Your task to perform on an android device: Search for pizza restaurants on Maps Image 0: 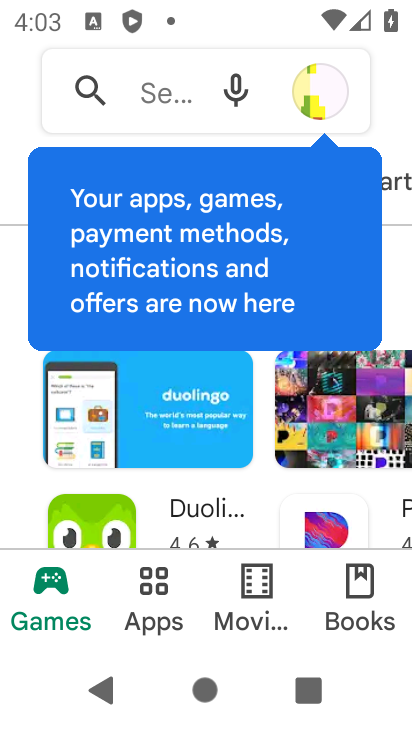
Step 0: press home button
Your task to perform on an android device: Search for pizza restaurants on Maps Image 1: 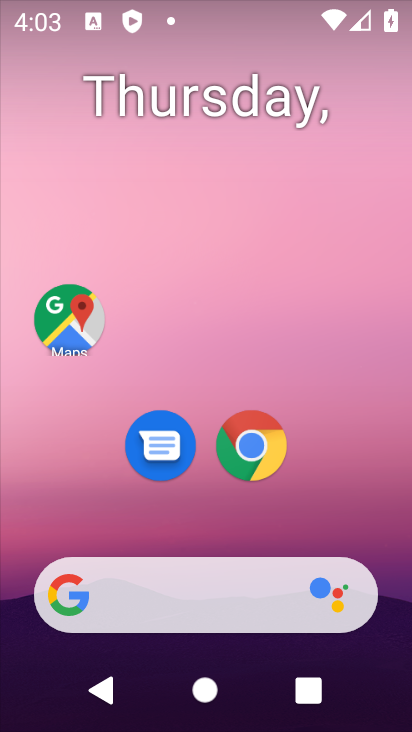
Step 1: click (63, 299)
Your task to perform on an android device: Search for pizza restaurants on Maps Image 2: 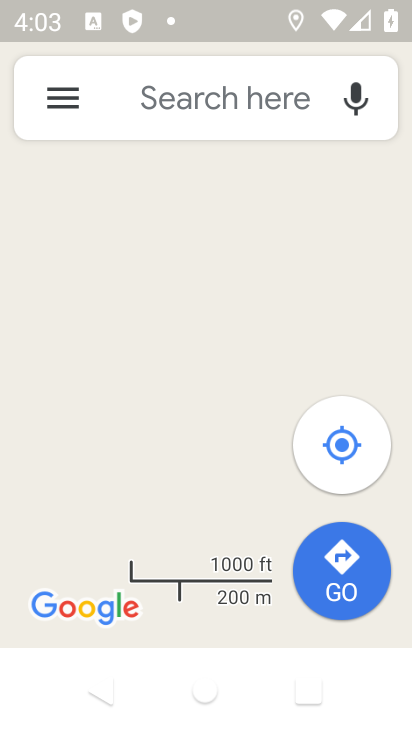
Step 2: click (197, 107)
Your task to perform on an android device: Search for pizza restaurants on Maps Image 3: 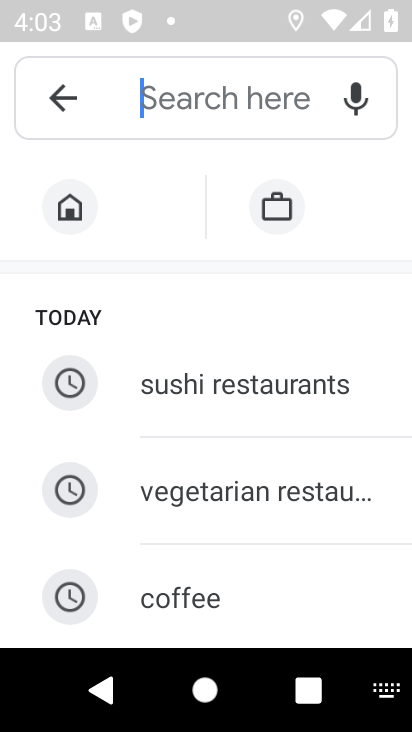
Step 3: drag from (337, 541) to (327, 186)
Your task to perform on an android device: Search for pizza restaurants on Maps Image 4: 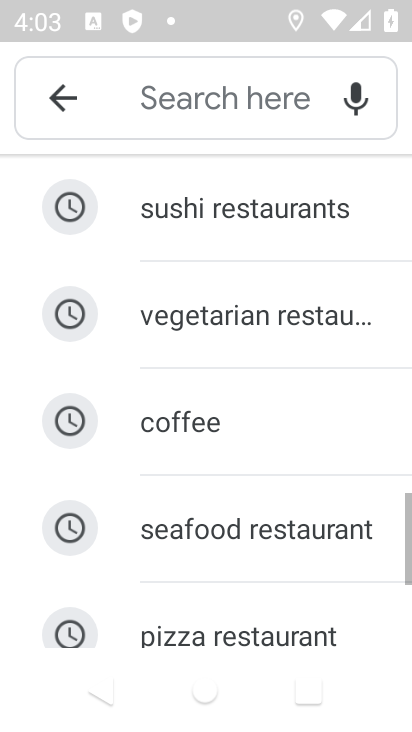
Step 4: drag from (328, 571) to (338, 297)
Your task to perform on an android device: Search for pizza restaurants on Maps Image 5: 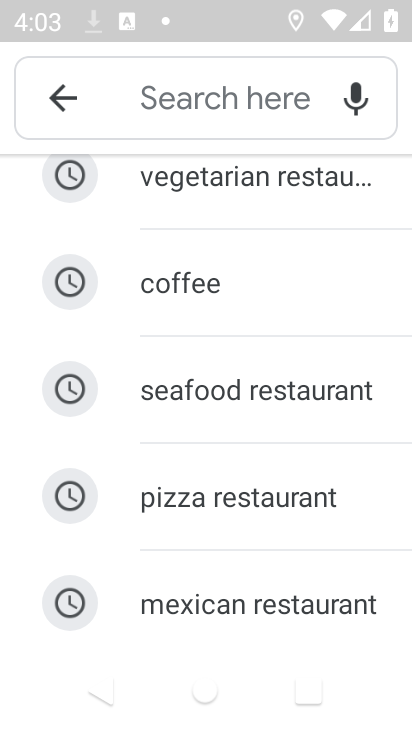
Step 5: click (283, 511)
Your task to perform on an android device: Search for pizza restaurants on Maps Image 6: 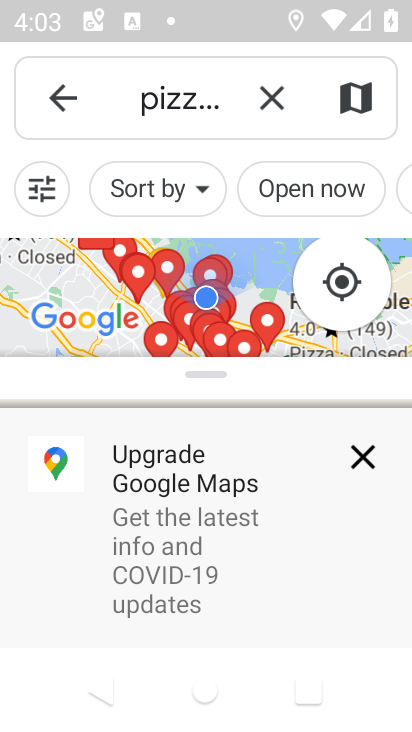
Step 6: task complete